Your task to perform on an android device: Install the ESPN app Image 0: 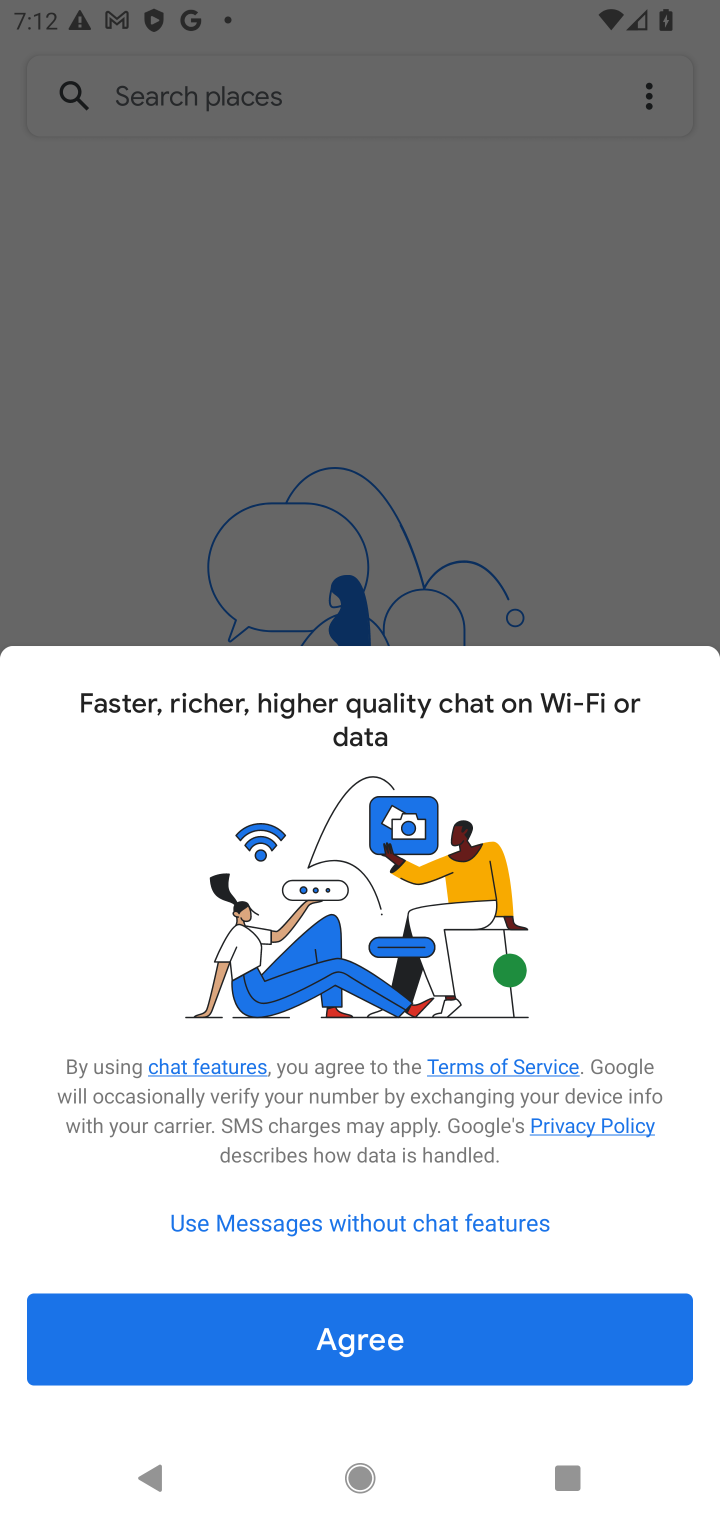
Step 0: press home button
Your task to perform on an android device: Install the ESPN app Image 1: 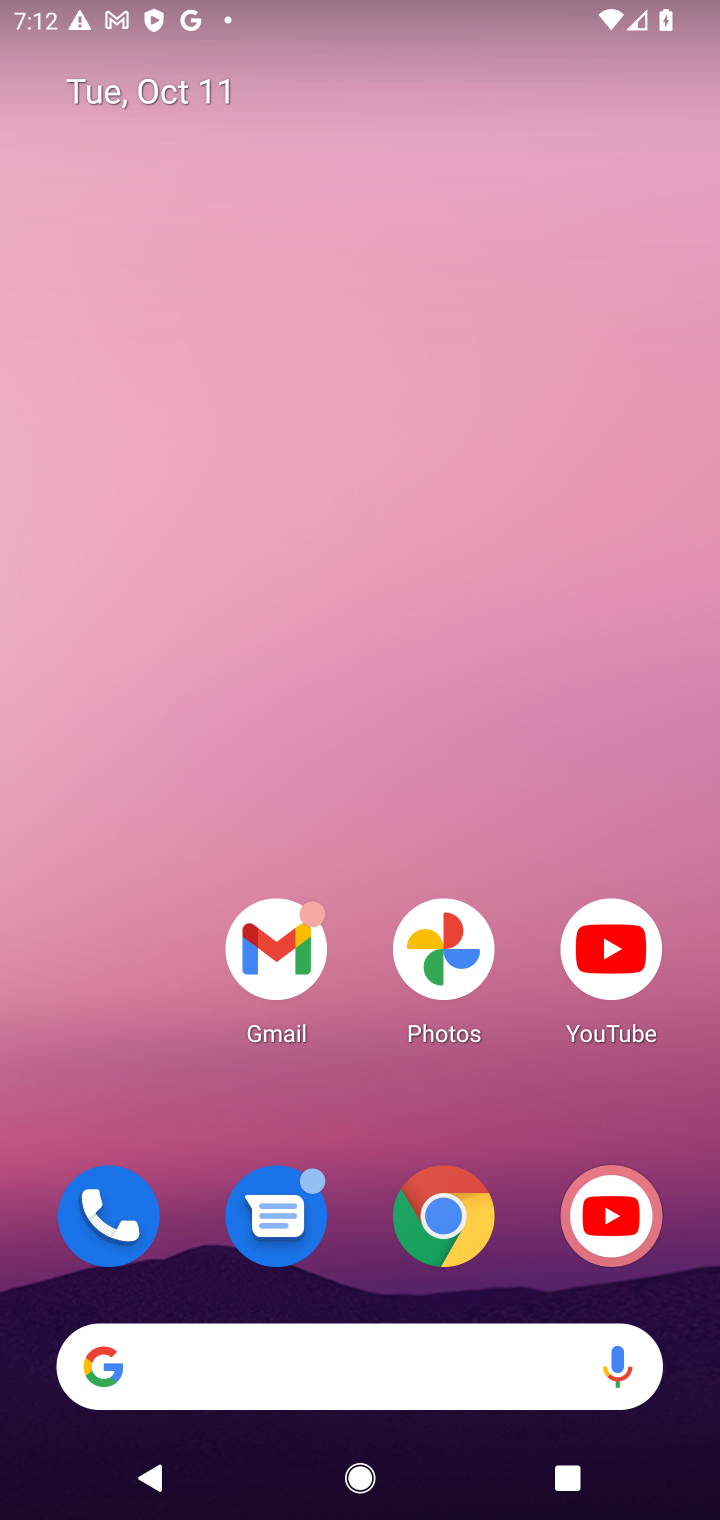
Step 1: drag from (315, 1368) to (218, 425)
Your task to perform on an android device: Install the ESPN app Image 2: 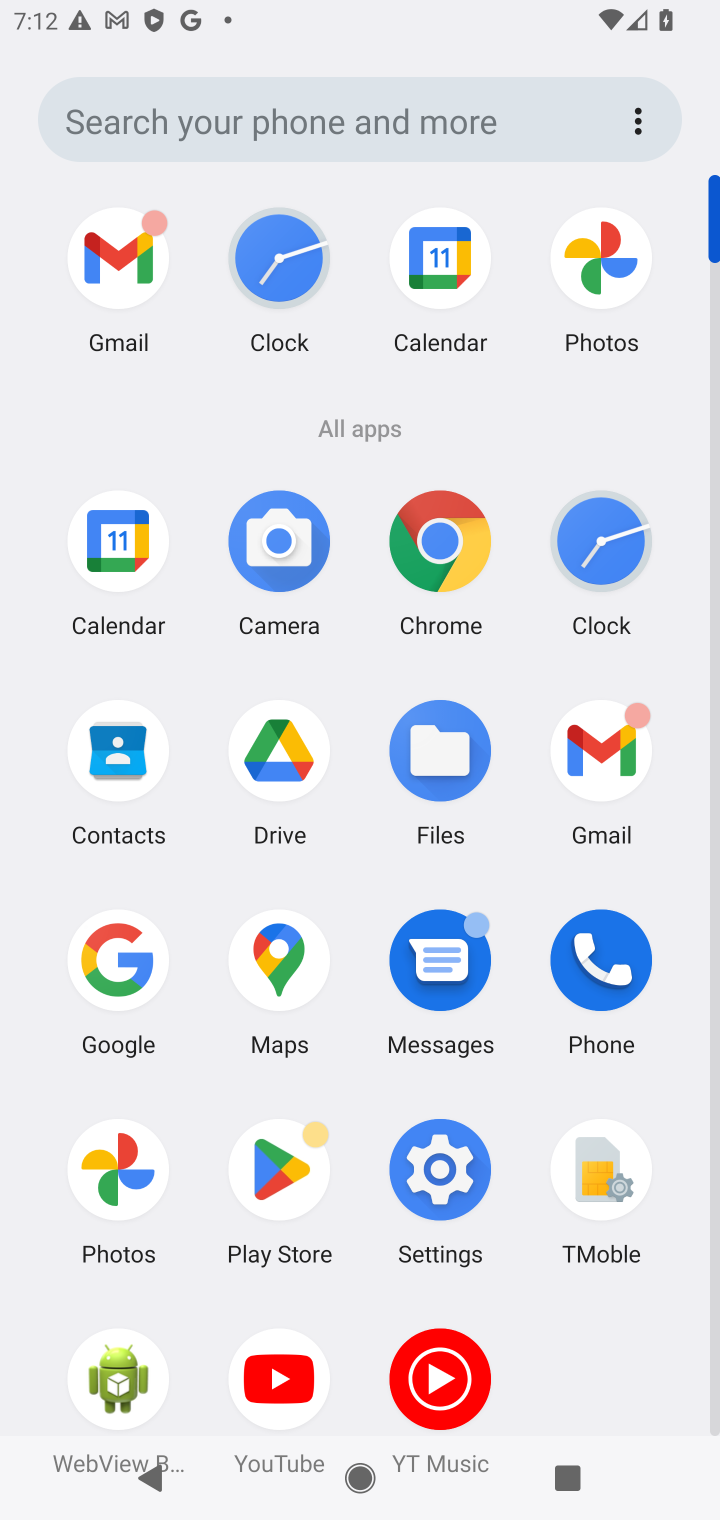
Step 2: click (290, 1180)
Your task to perform on an android device: Install the ESPN app Image 3: 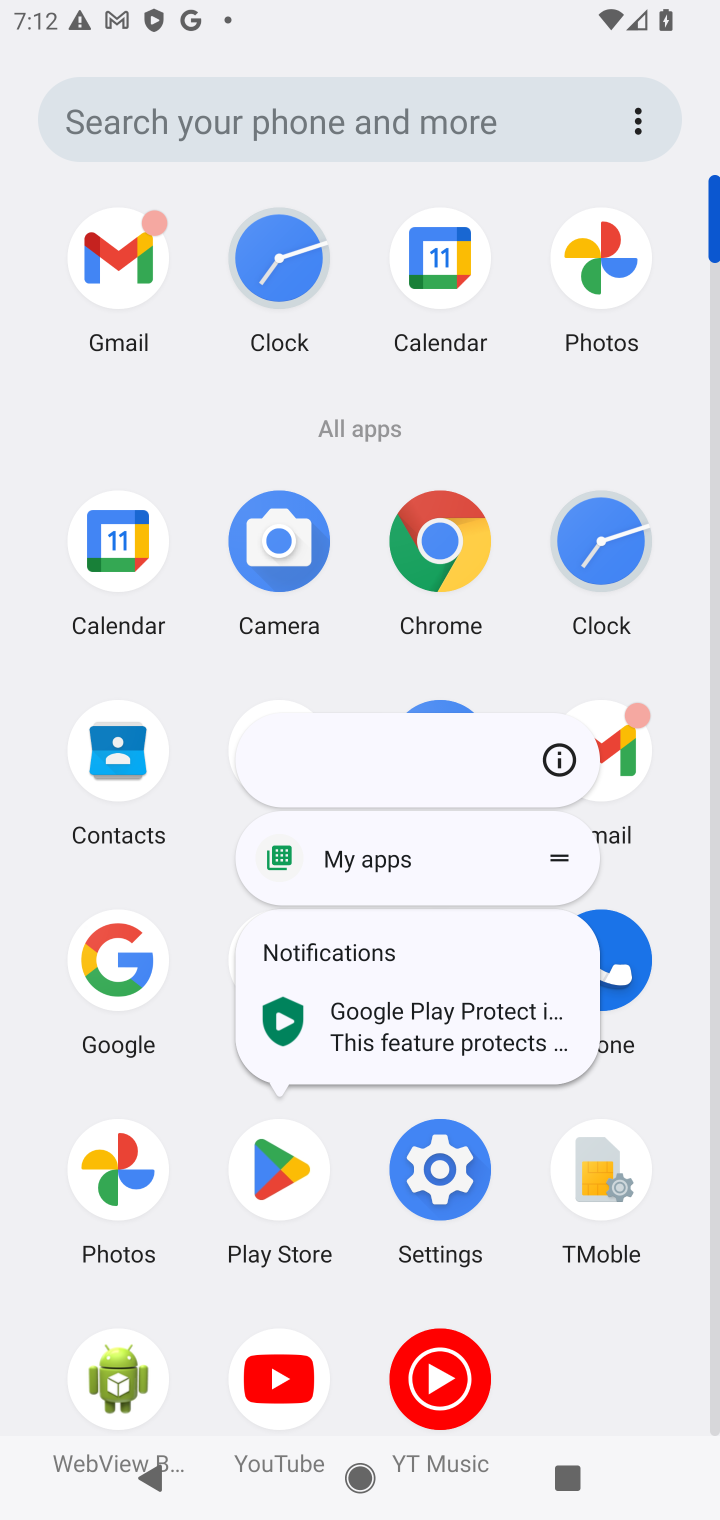
Step 3: click (290, 1180)
Your task to perform on an android device: Install the ESPN app Image 4: 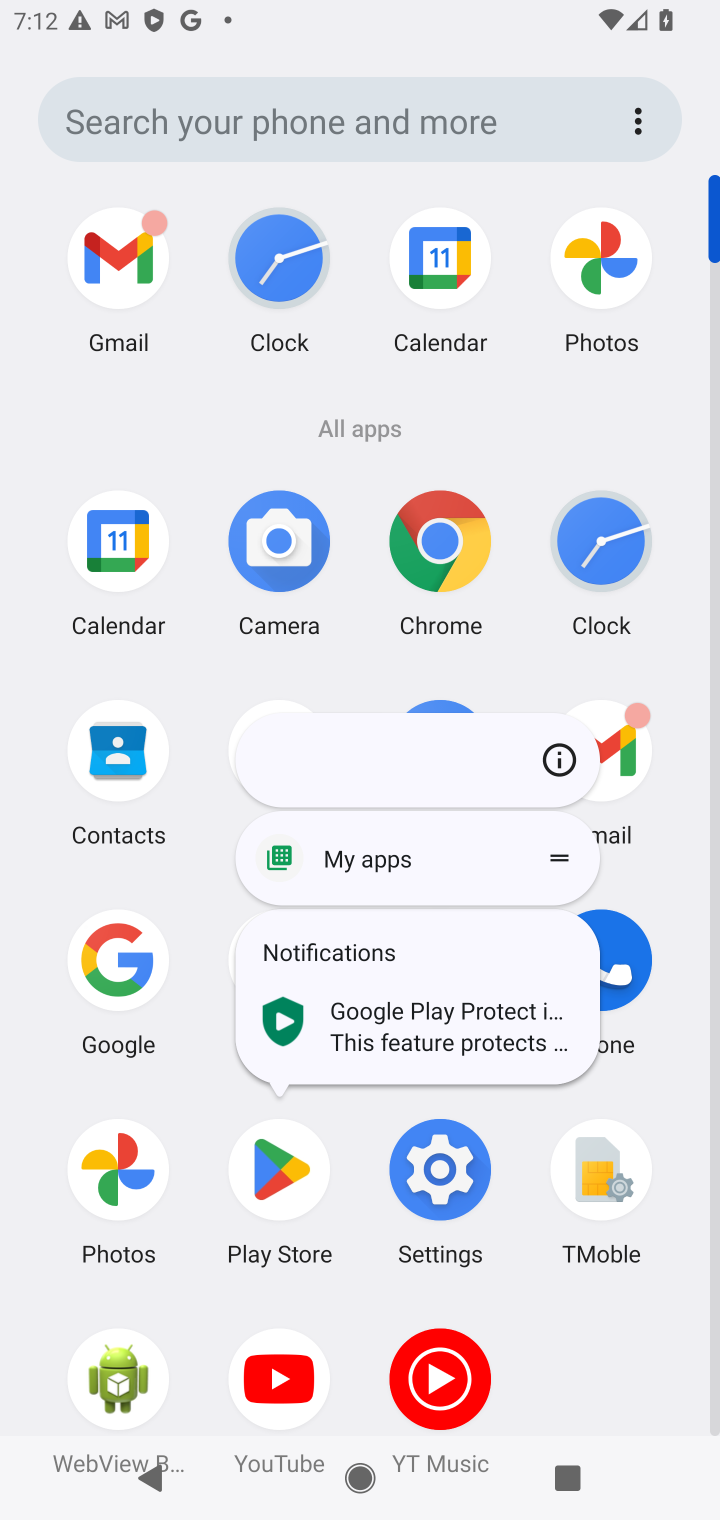
Step 4: click (290, 1180)
Your task to perform on an android device: Install the ESPN app Image 5: 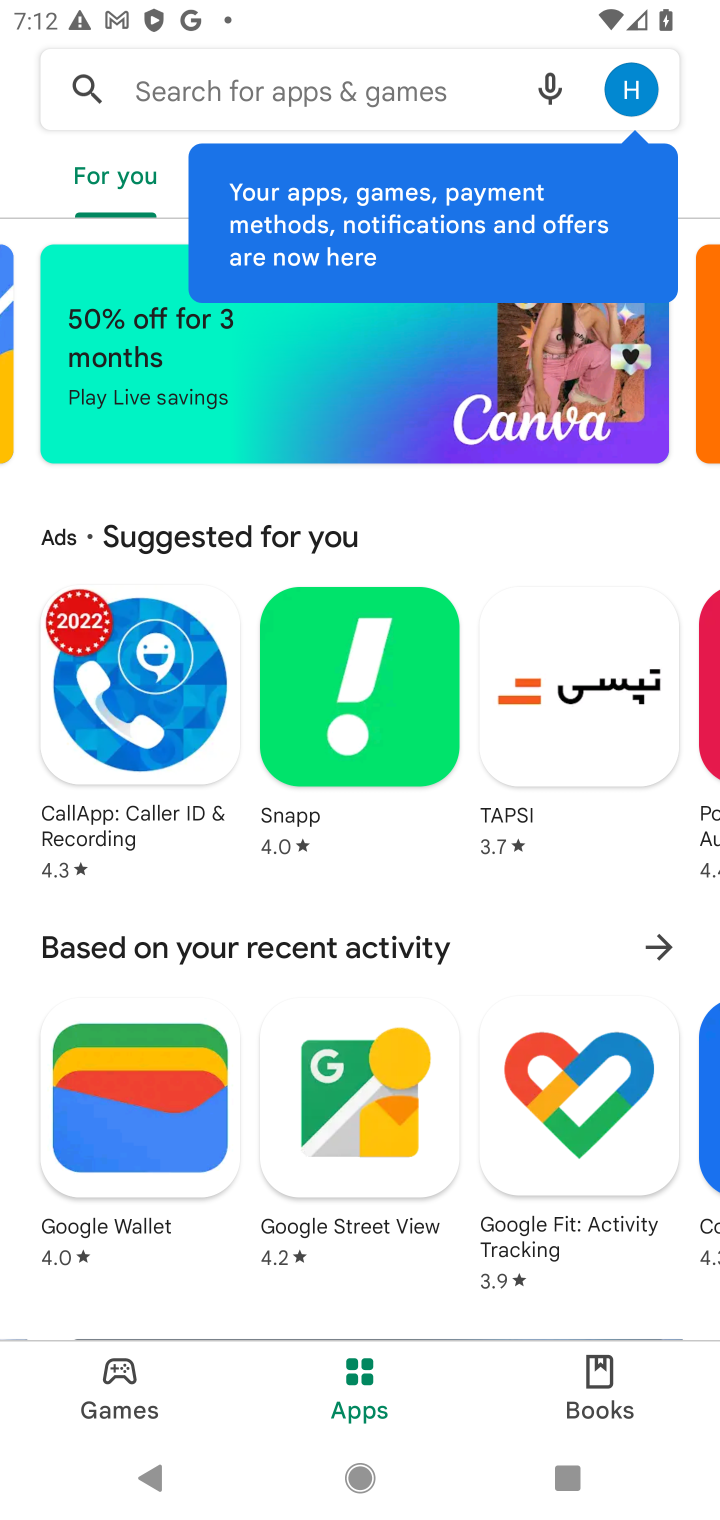
Step 5: click (394, 70)
Your task to perform on an android device: Install the ESPN app Image 6: 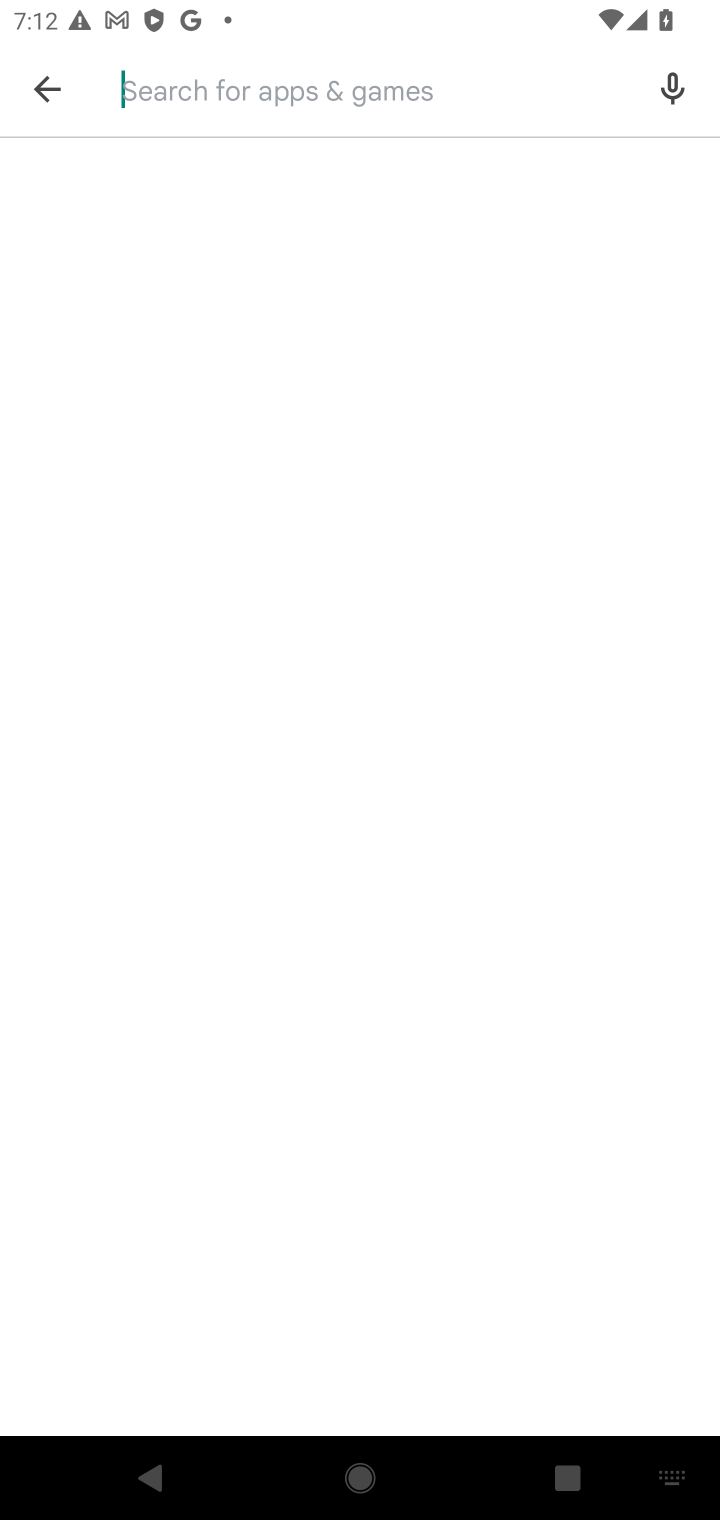
Step 6: type "espn app"
Your task to perform on an android device: Install the ESPN app Image 7: 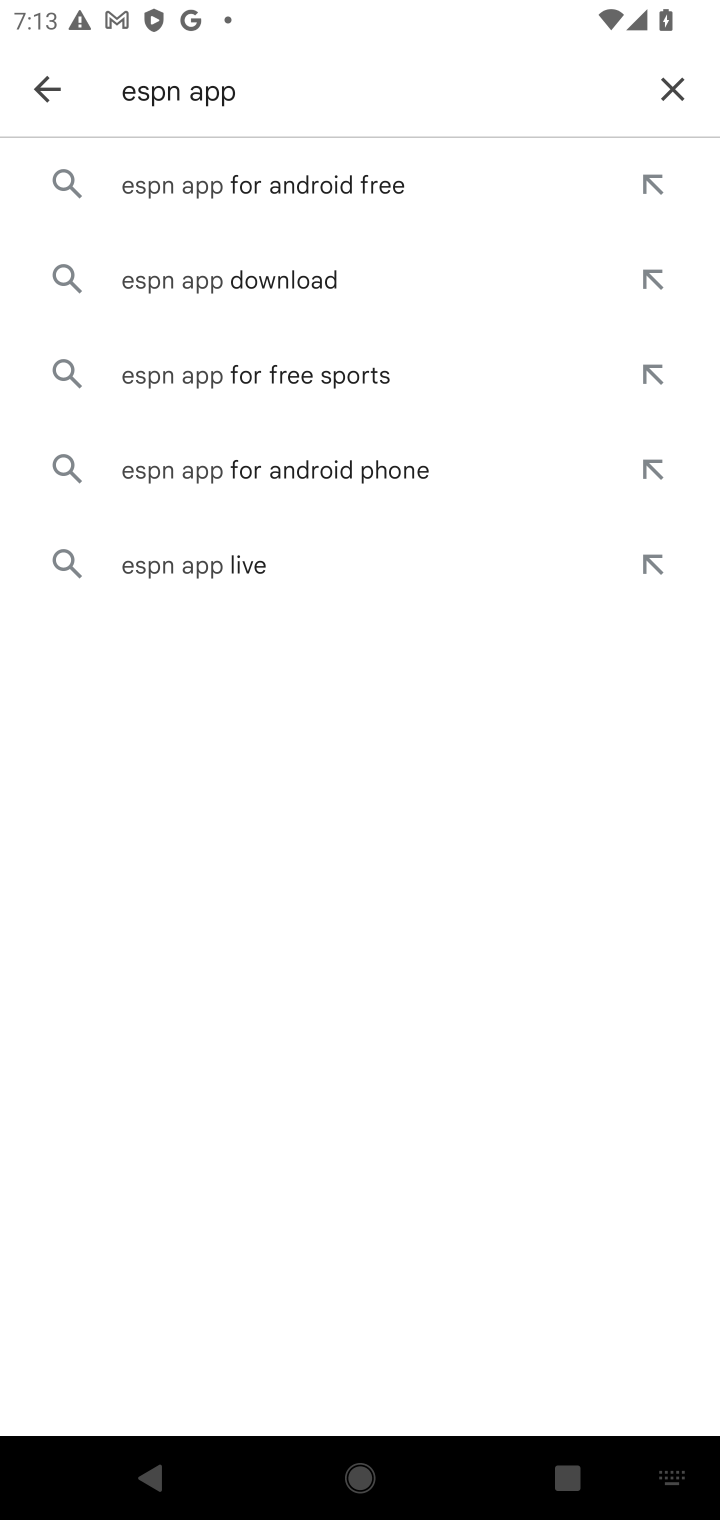
Step 7: press enter
Your task to perform on an android device: Install the ESPN app Image 8: 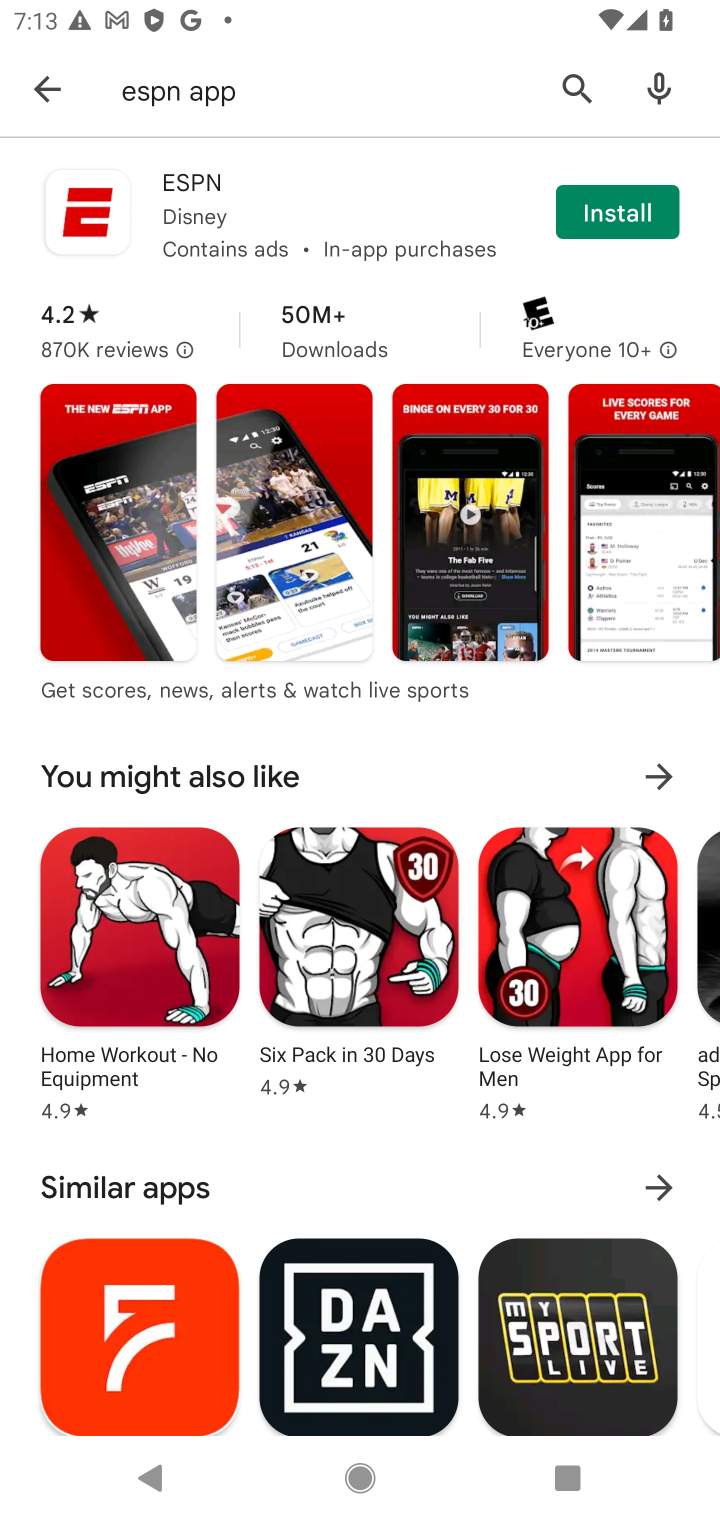
Step 8: click (587, 215)
Your task to perform on an android device: Install the ESPN app Image 9: 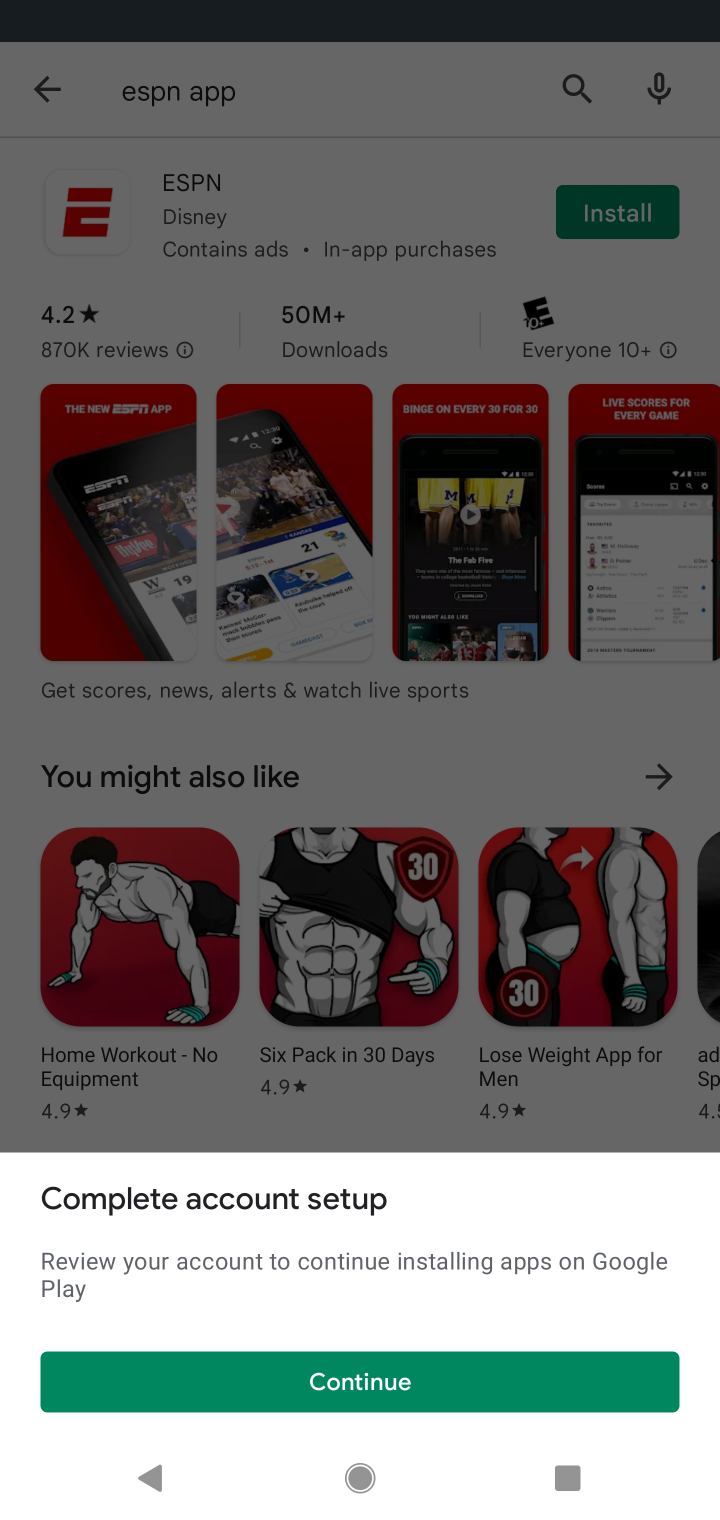
Step 9: click (400, 1392)
Your task to perform on an android device: Install the ESPN app Image 10: 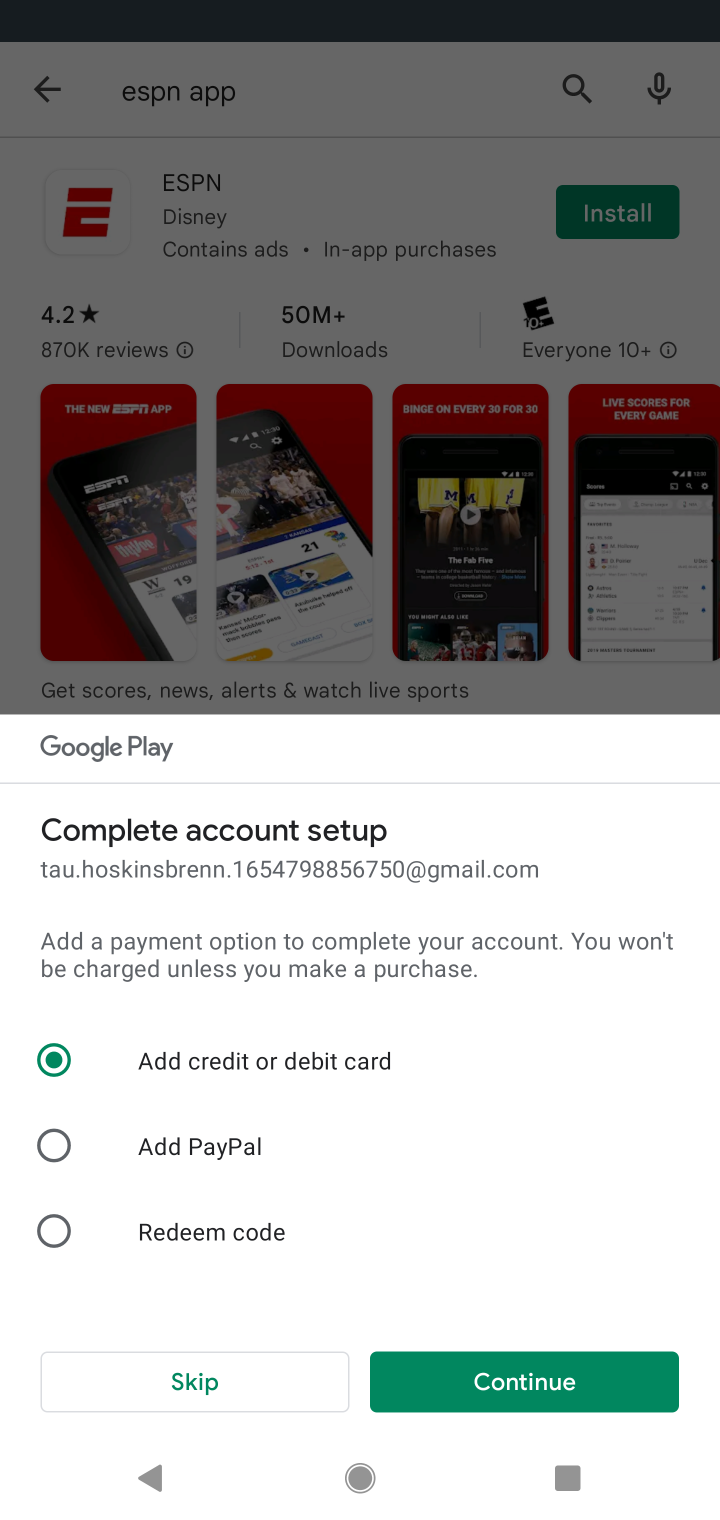
Step 10: click (275, 1395)
Your task to perform on an android device: Install the ESPN app Image 11: 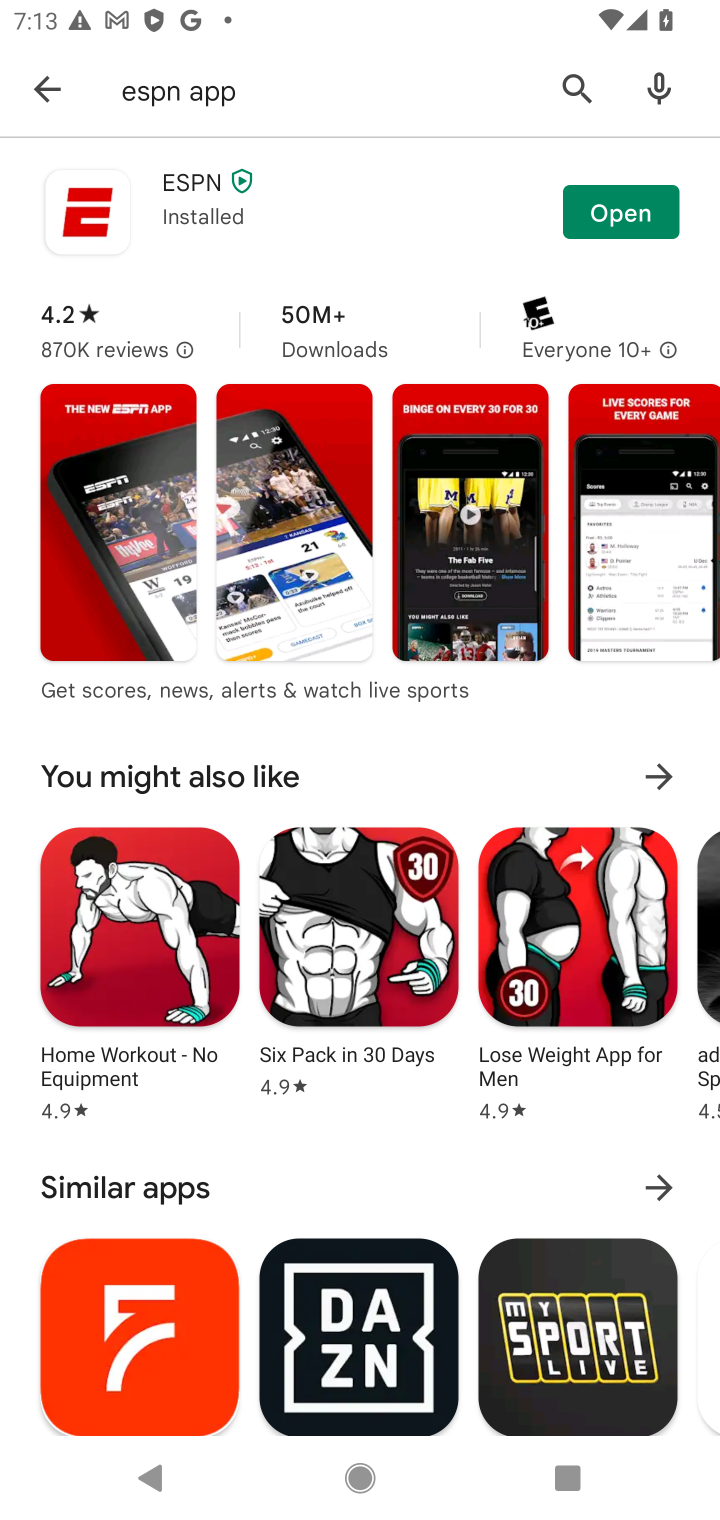
Step 11: click (638, 223)
Your task to perform on an android device: Install the ESPN app Image 12: 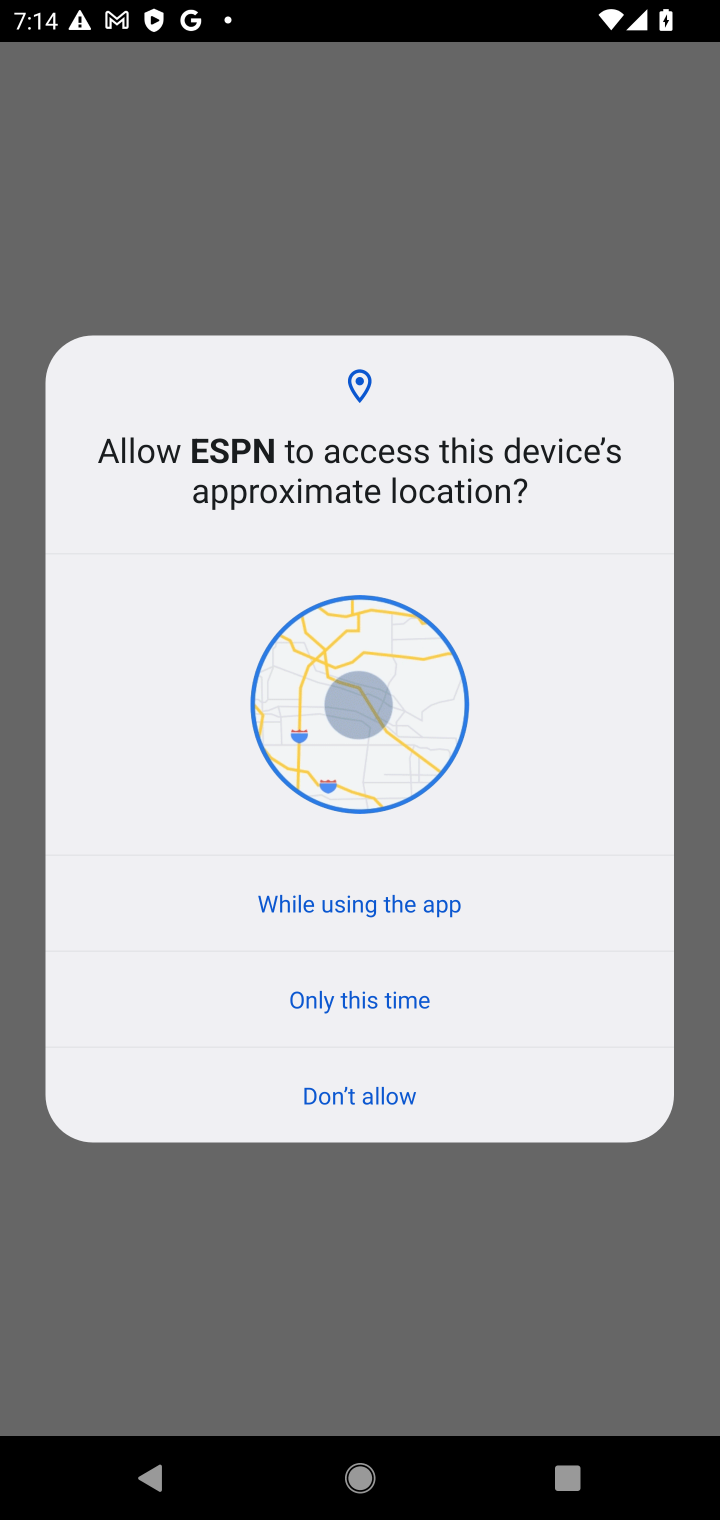
Step 12: task complete